Your task to perform on an android device: Open Google Chrome and open the bookmarks view Image 0: 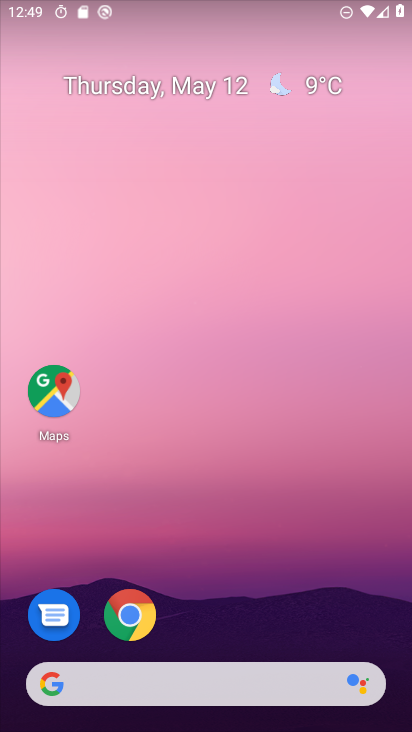
Step 0: click (132, 608)
Your task to perform on an android device: Open Google Chrome and open the bookmarks view Image 1: 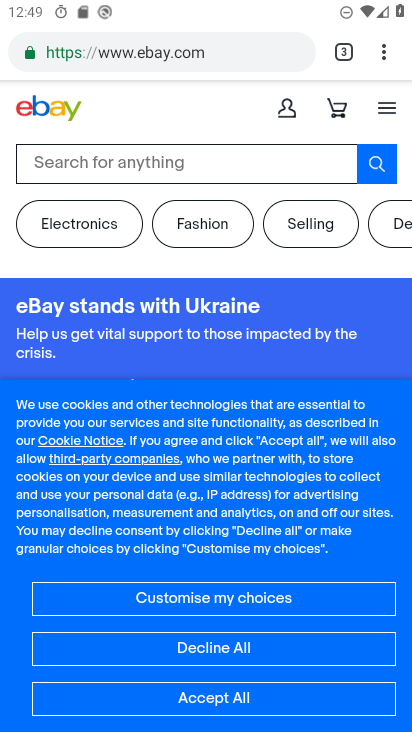
Step 1: task complete